Your task to perform on an android device: stop showing notifications on the lock screen Image 0: 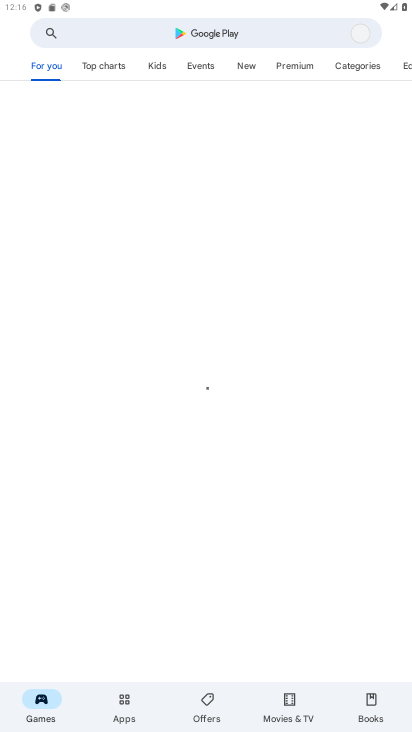
Step 0: press home button
Your task to perform on an android device: stop showing notifications on the lock screen Image 1: 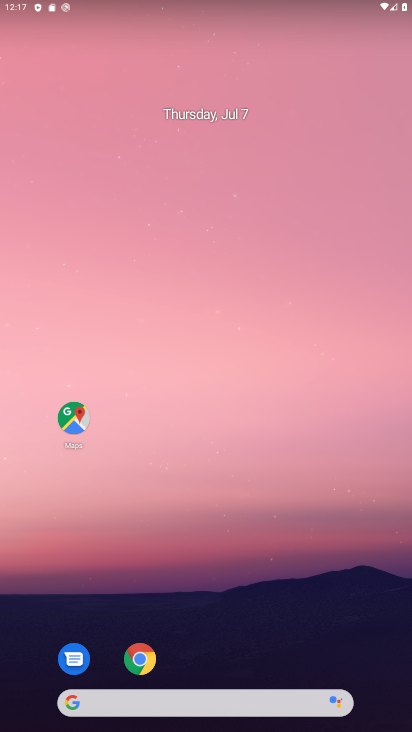
Step 1: drag from (205, 596) to (199, 172)
Your task to perform on an android device: stop showing notifications on the lock screen Image 2: 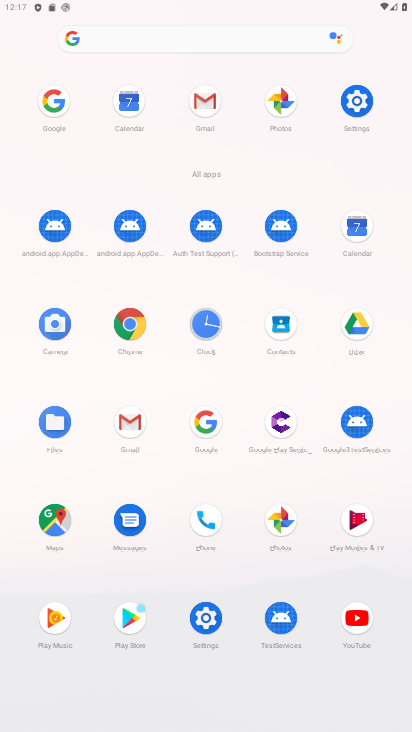
Step 2: click (357, 100)
Your task to perform on an android device: stop showing notifications on the lock screen Image 3: 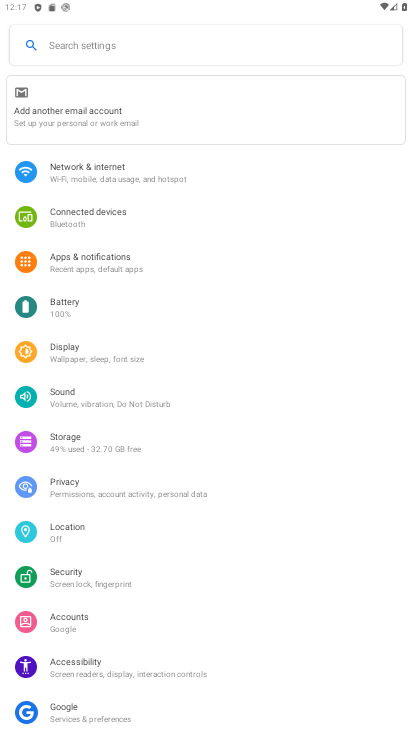
Step 3: click (112, 260)
Your task to perform on an android device: stop showing notifications on the lock screen Image 4: 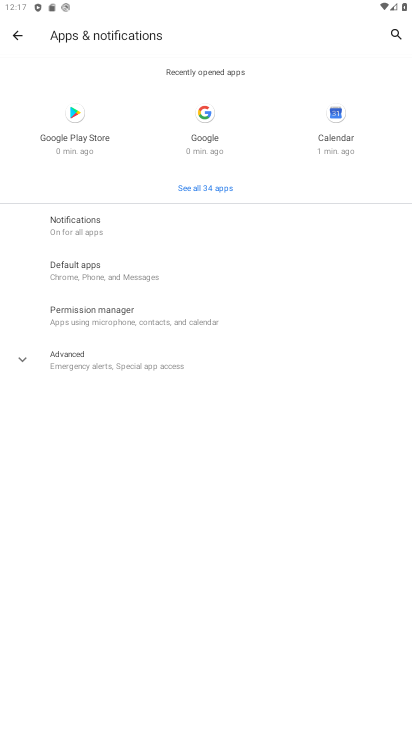
Step 4: click (73, 225)
Your task to perform on an android device: stop showing notifications on the lock screen Image 5: 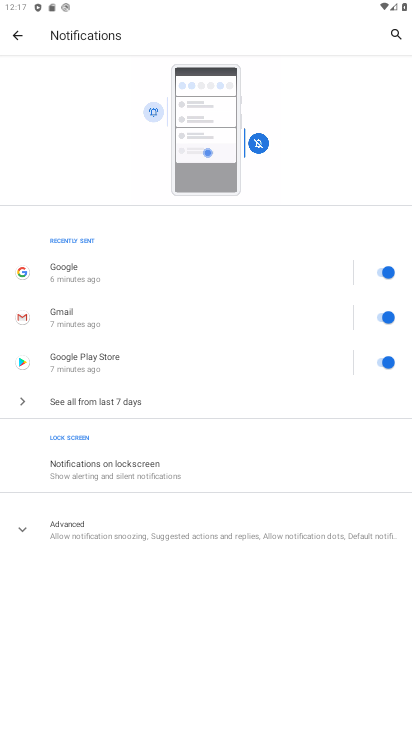
Step 5: click (132, 455)
Your task to perform on an android device: stop showing notifications on the lock screen Image 6: 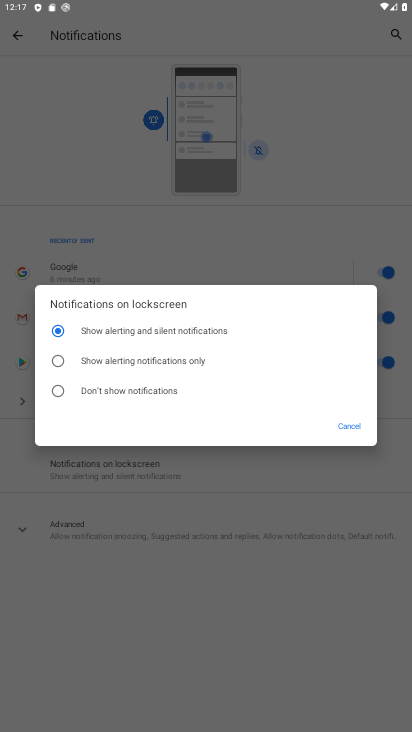
Step 6: click (51, 385)
Your task to perform on an android device: stop showing notifications on the lock screen Image 7: 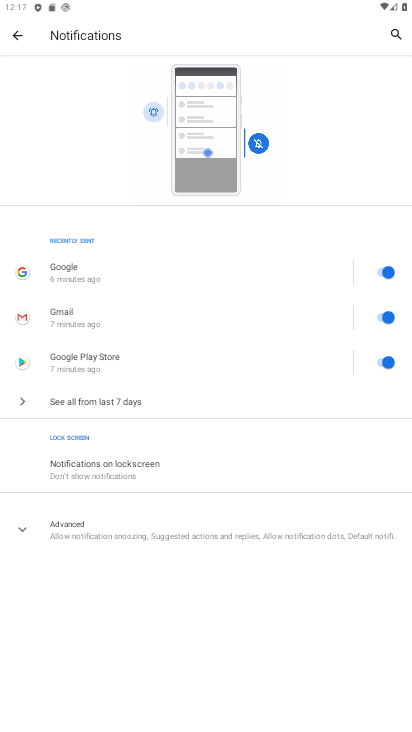
Step 7: task complete